Your task to perform on an android device: toggle show notifications on the lock screen Image 0: 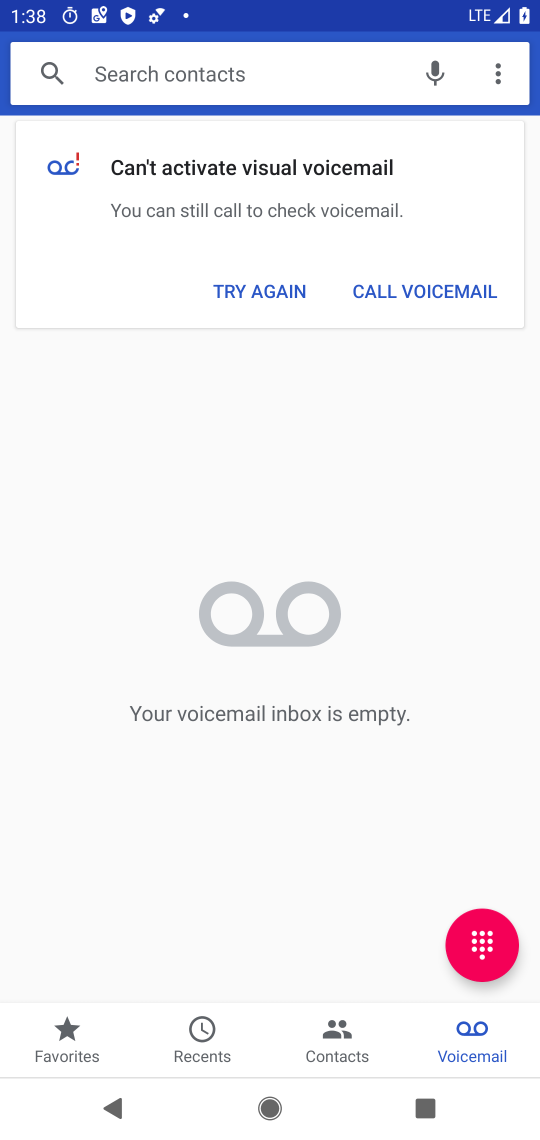
Step 0: press home button
Your task to perform on an android device: toggle show notifications on the lock screen Image 1: 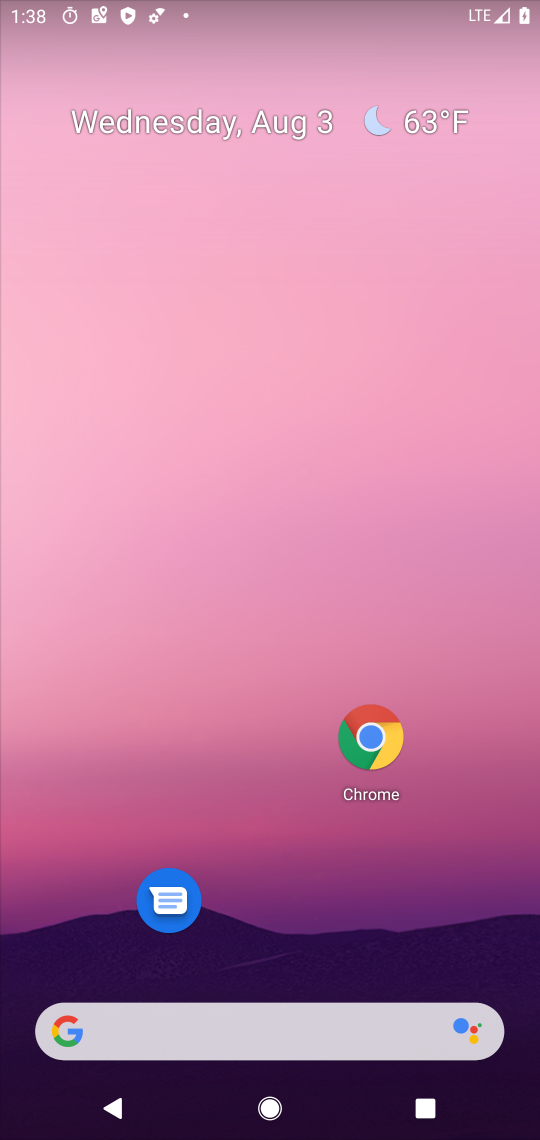
Step 1: drag from (290, 947) to (291, 147)
Your task to perform on an android device: toggle show notifications on the lock screen Image 2: 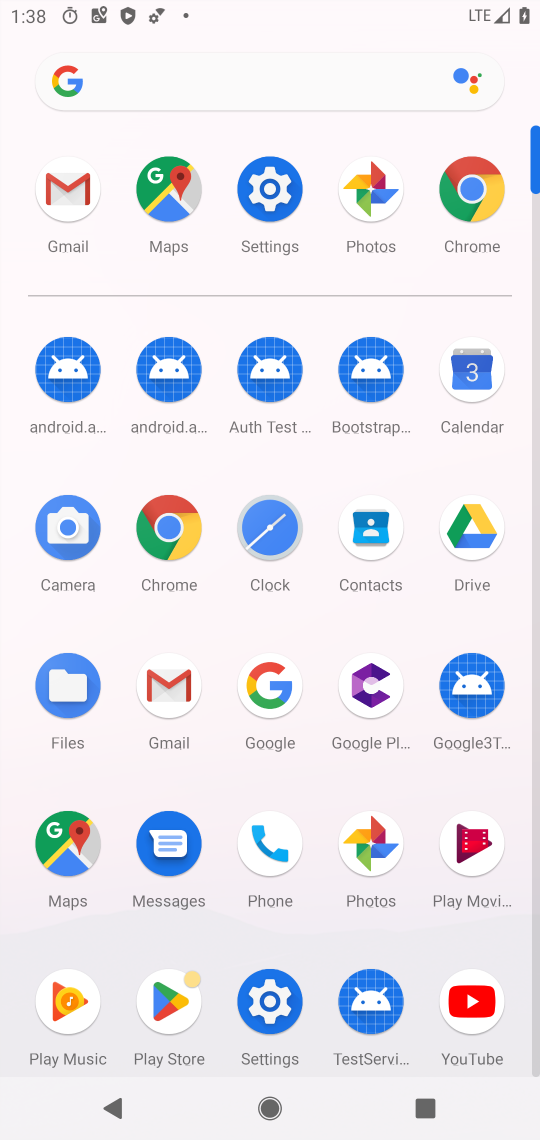
Step 2: click (261, 195)
Your task to perform on an android device: toggle show notifications on the lock screen Image 3: 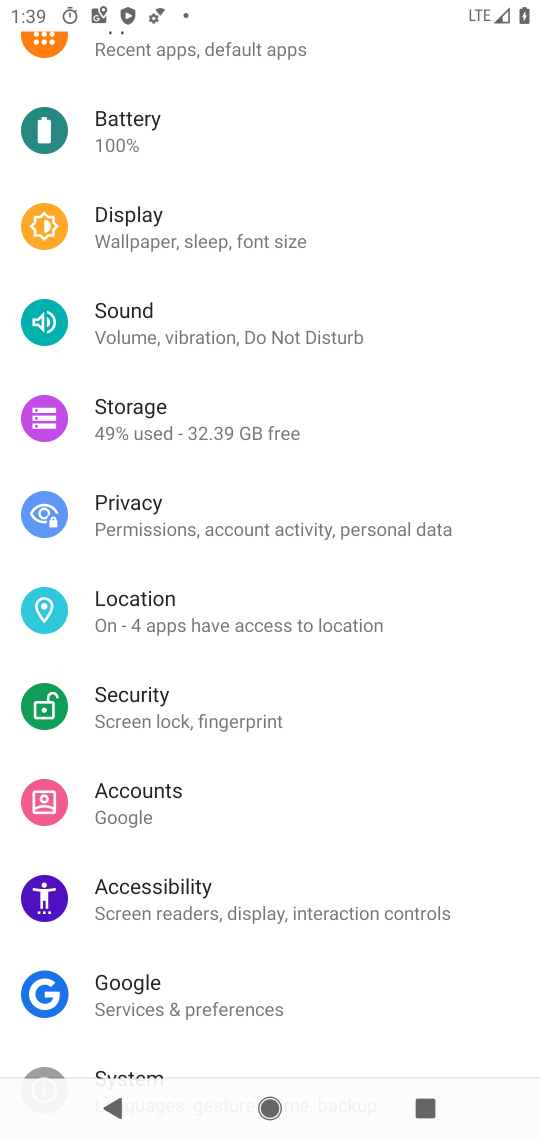
Step 3: drag from (263, 170) to (288, 831)
Your task to perform on an android device: toggle show notifications on the lock screen Image 4: 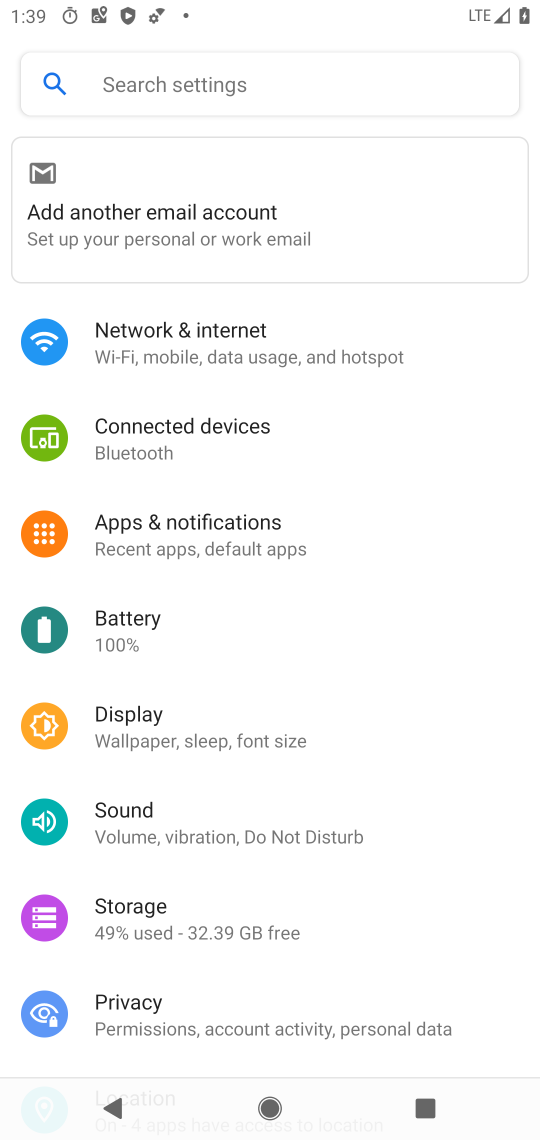
Step 4: click (178, 536)
Your task to perform on an android device: toggle show notifications on the lock screen Image 5: 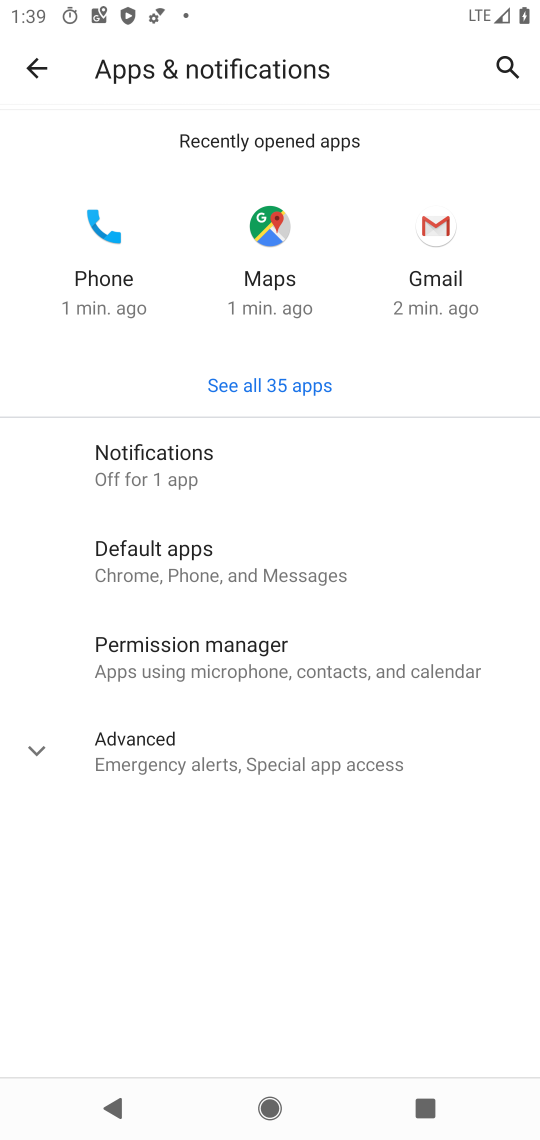
Step 5: click (196, 479)
Your task to perform on an android device: toggle show notifications on the lock screen Image 6: 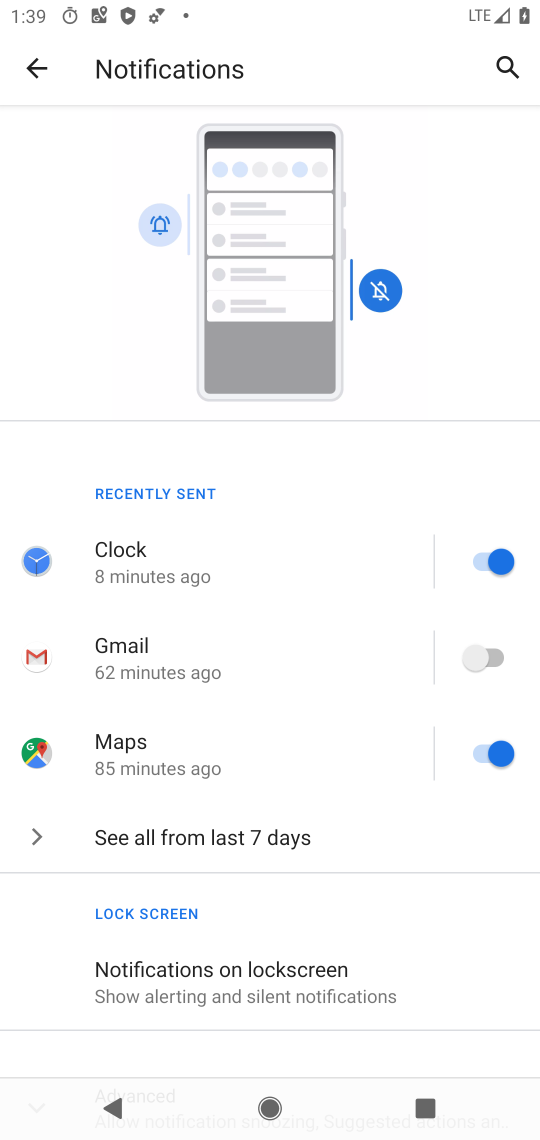
Step 6: click (186, 978)
Your task to perform on an android device: toggle show notifications on the lock screen Image 7: 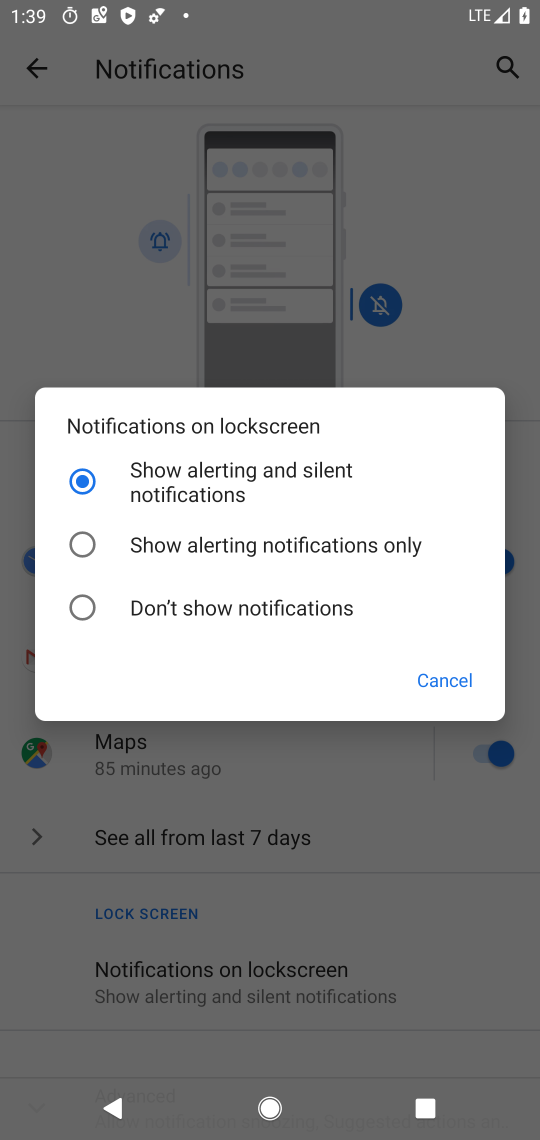
Step 7: click (271, 544)
Your task to perform on an android device: toggle show notifications on the lock screen Image 8: 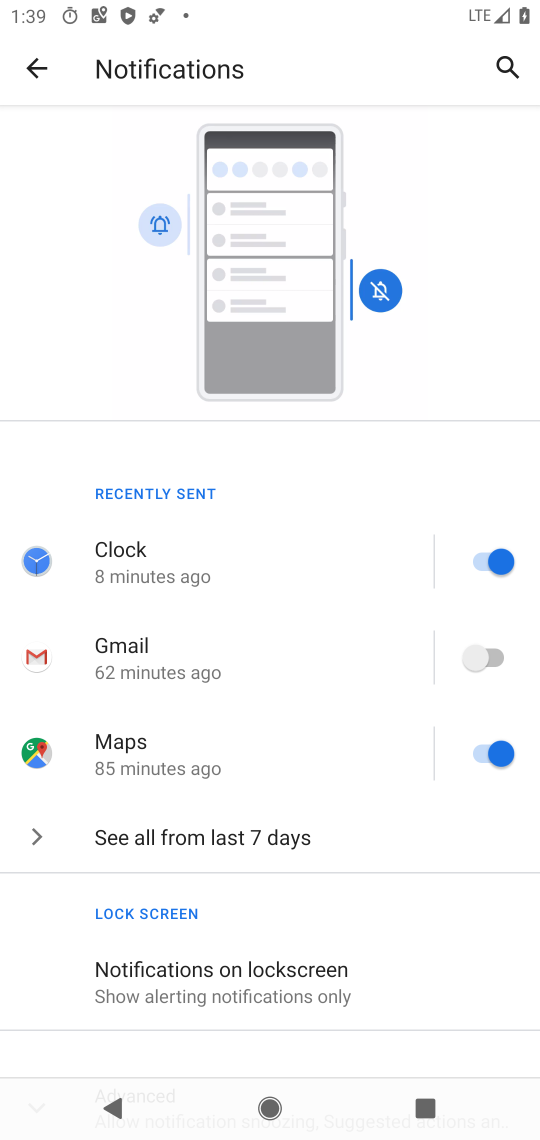
Step 8: task complete